Your task to perform on an android device: open app "Contacts" (install if not already installed) Image 0: 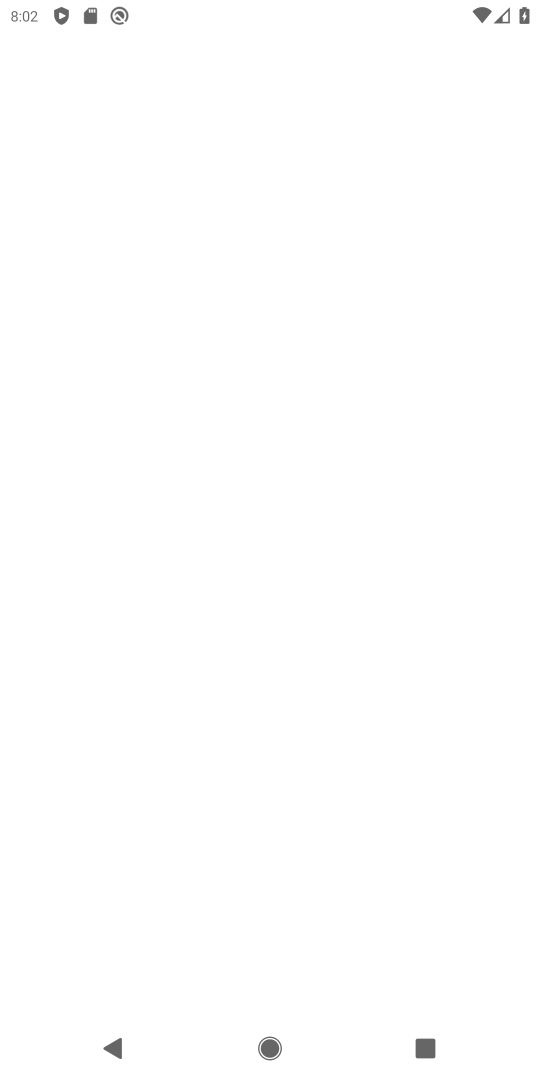
Step 0: press home button
Your task to perform on an android device: open app "Contacts" (install if not already installed) Image 1: 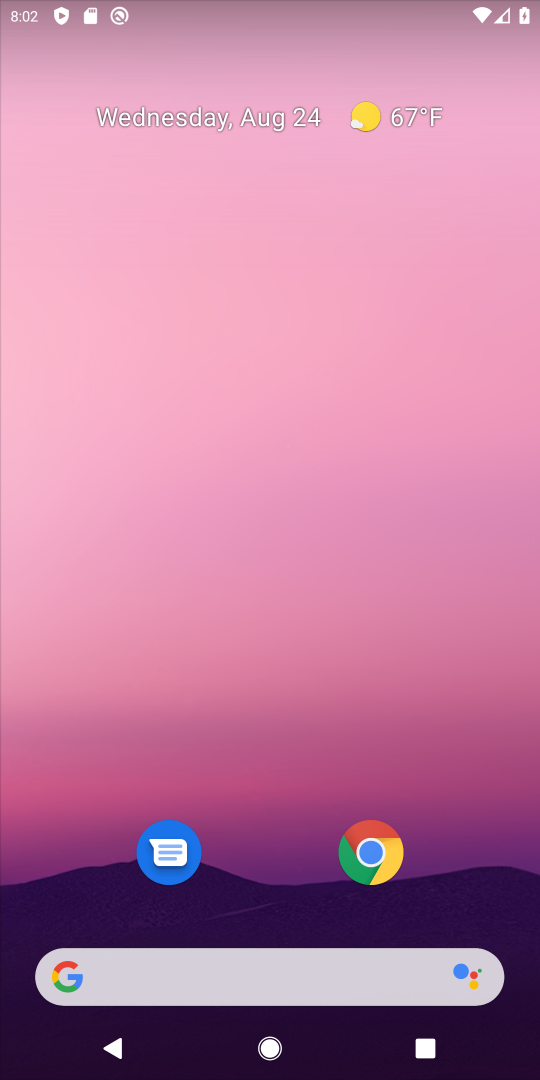
Step 1: drag from (246, 976) to (293, 177)
Your task to perform on an android device: open app "Contacts" (install if not already installed) Image 2: 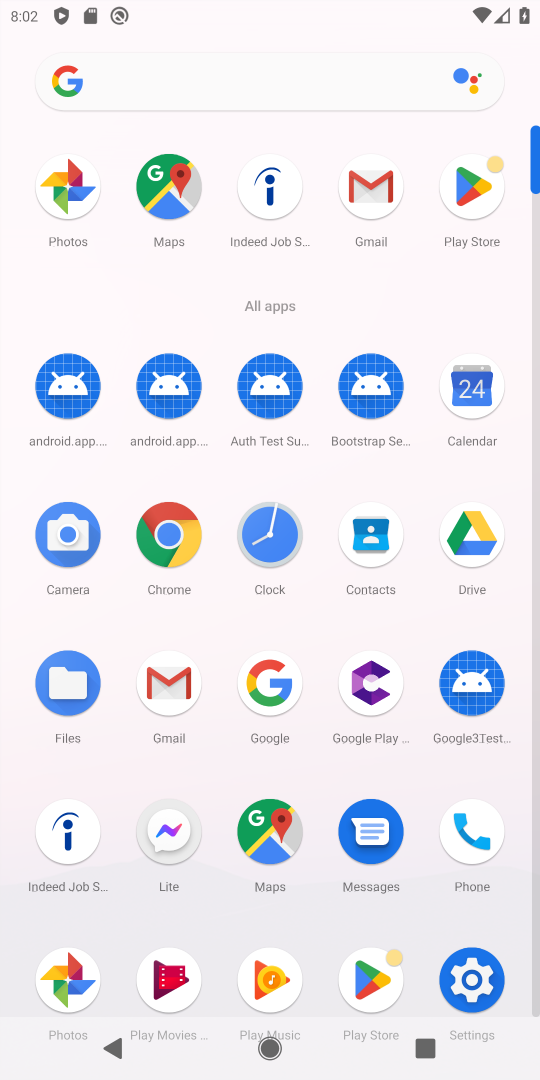
Step 2: click (471, 189)
Your task to perform on an android device: open app "Contacts" (install if not already installed) Image 3: 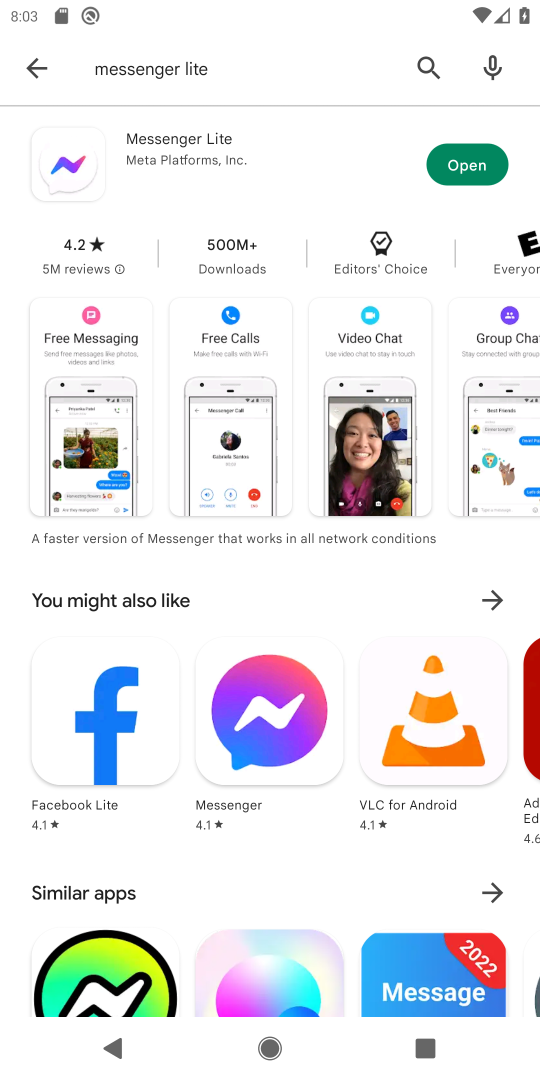
Step 3: press back button
Your task to perform on an android device: open app "Contacts" (install if not already installed) Image 4: 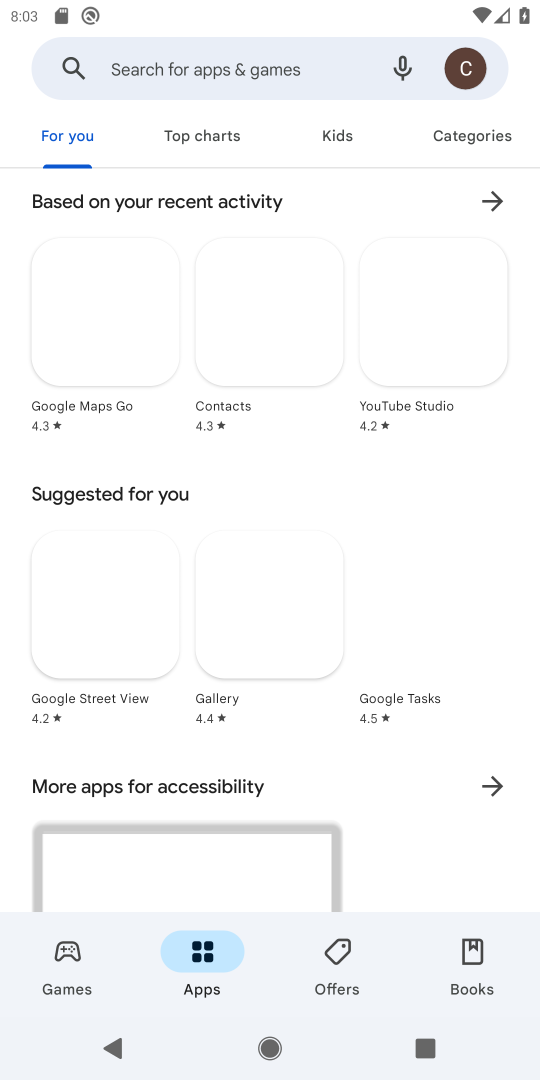
Step 4: click (203, 74)
Your task to perform on an android device: open app "Contacts" (install if not already installed) Image 5: 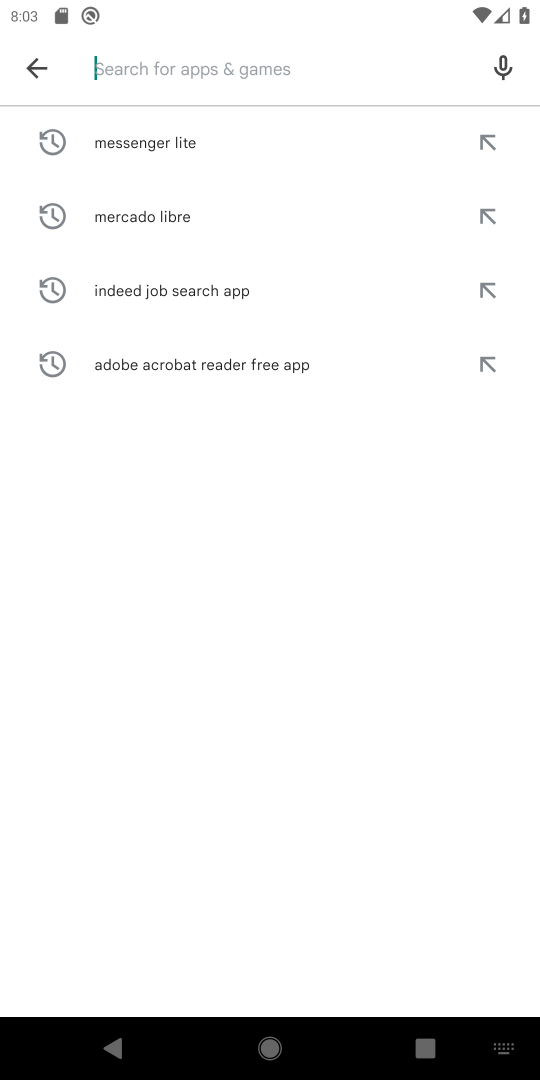
Step 5: type "Contacts"
Your task to perform on an android device: open app "Contacts" (install if not already installed) Image 6: 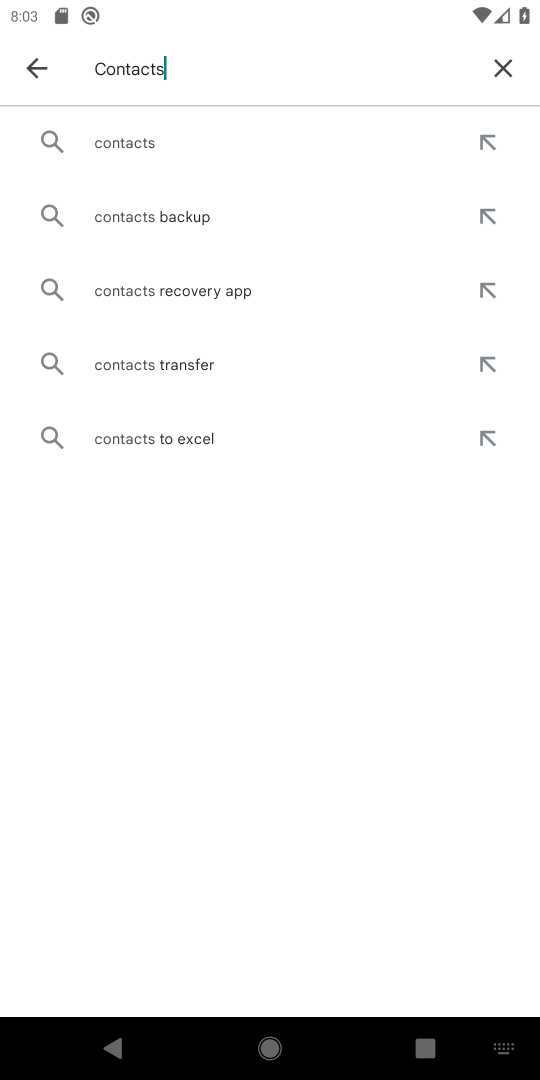
Step 6: click (138, 147)
Your task to perform on an android device: open app "Contacts" (install if not already installed) Image 7: 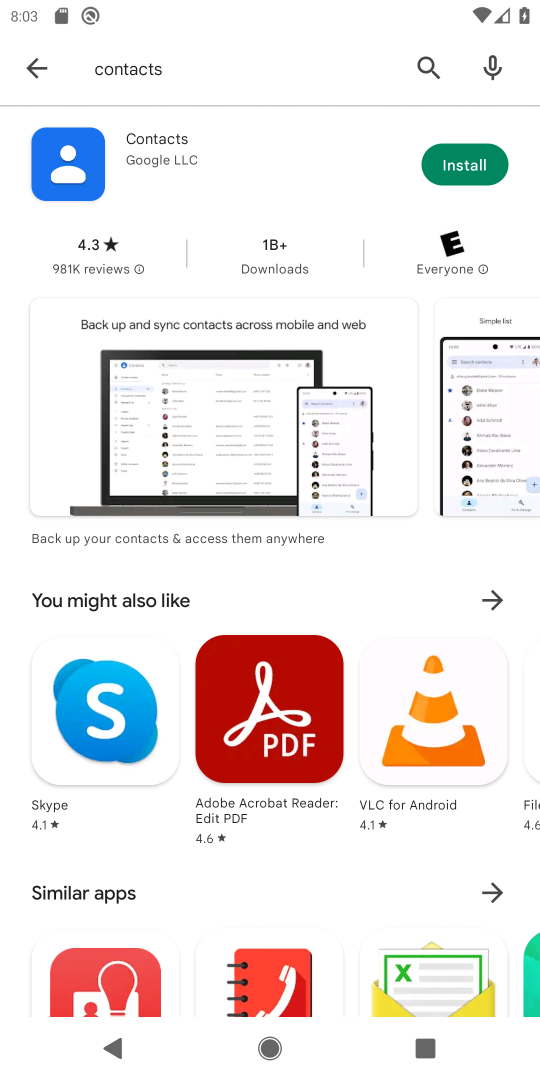
Step 7: click (462, 162)
Your task to perform on an android device: open app "Contacts" (install if not already installed) Image 8: 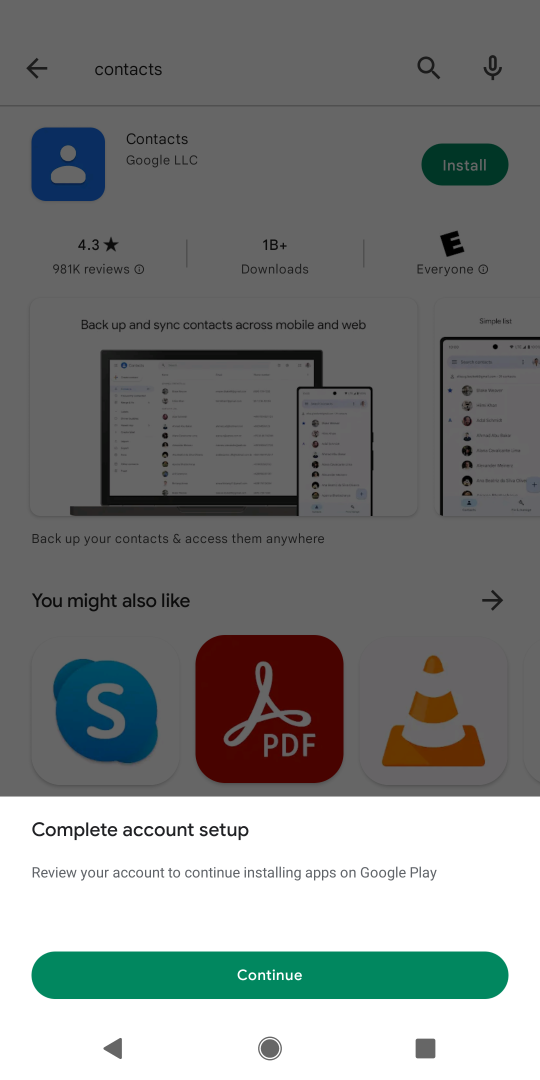
Step 8: click (283, 972)
Your task to perform on an android device: open app "Contacts" (install if not already installed) Image 9: 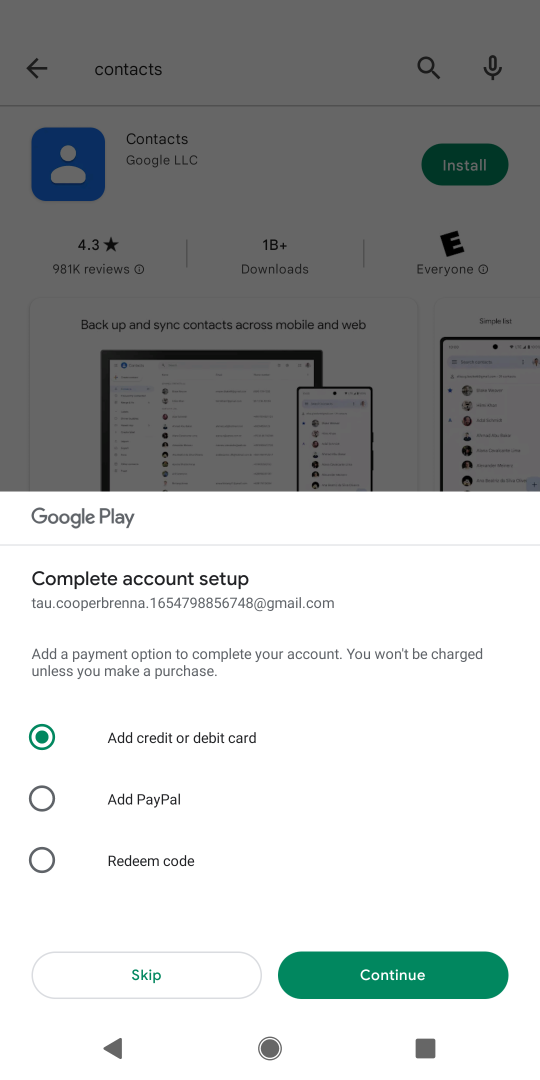
Step 9: click (145, 980)
Your task to perform on an android device: open app "Contacts" (install if not already installed) Image 10: 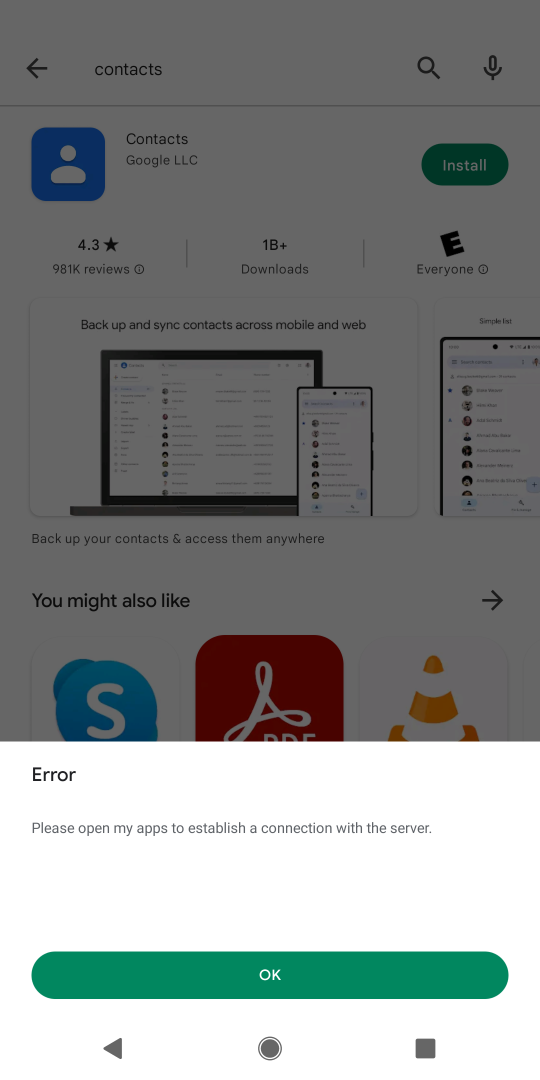
Step 10: click (281, 969)
Your task to perform on an android device: open app "Contacts" (install if not already installed) Image 11: 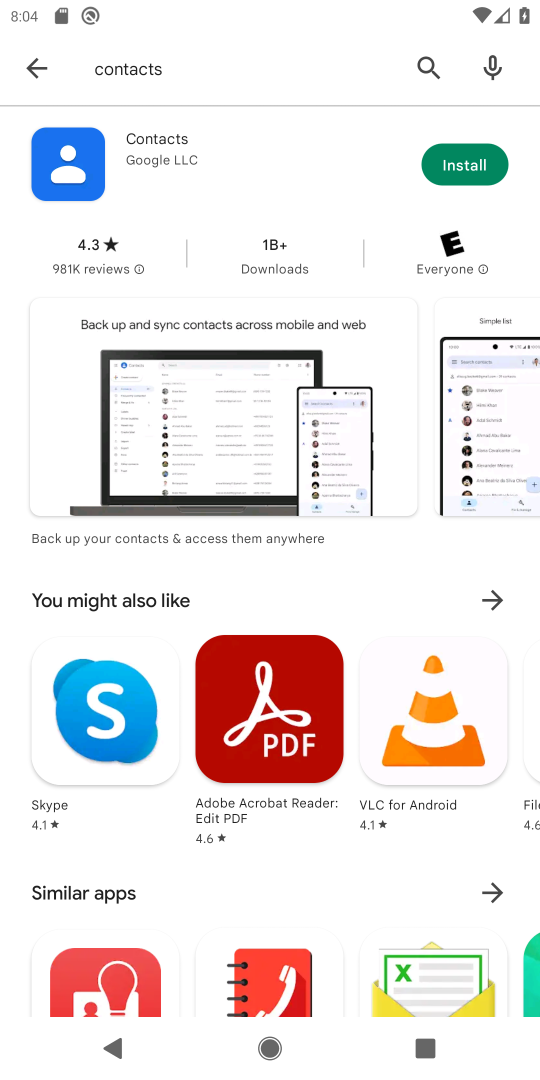
Step 11: click (459, 166)
Your task to perform on an android device: open app "Contacts" (install if not already installed) Image 12: 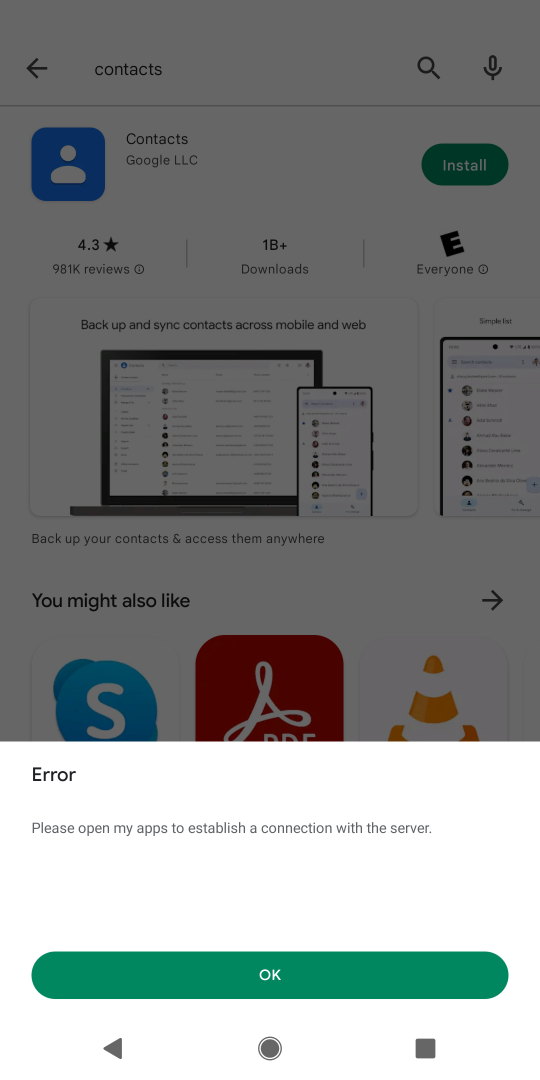
Step 12: click (291, 966)
Your task to perform on an android device: open app "Contacts" (install if not already installed) Image 13: 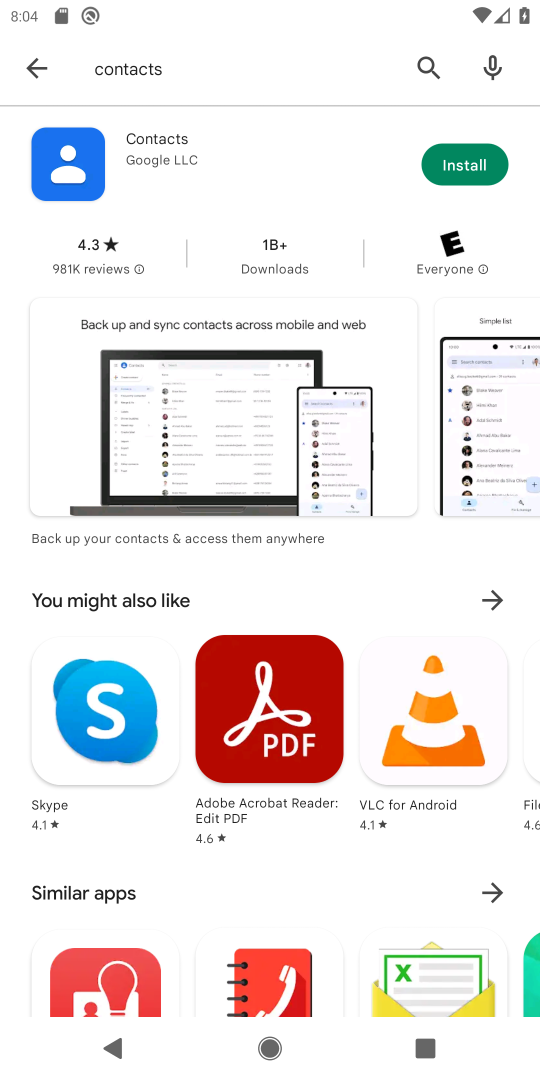
Step 13: task complete